Your task to perform on an android device: Go to privacy settings Image 0: 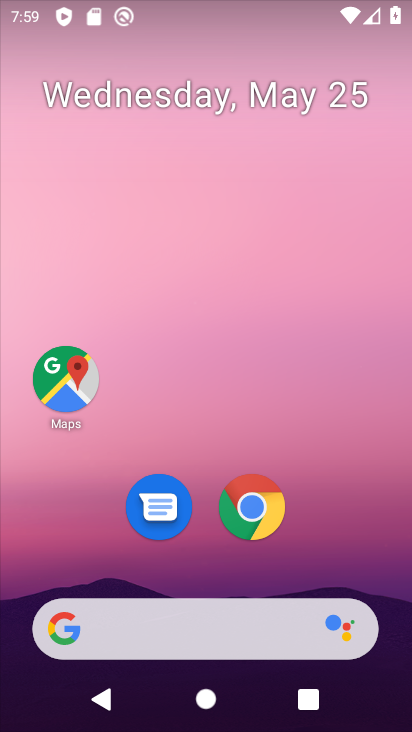
Step 0: drag from (222, 588) to (101, 0)
Your task to perform on an android device: Go to privacy settings Image 1: 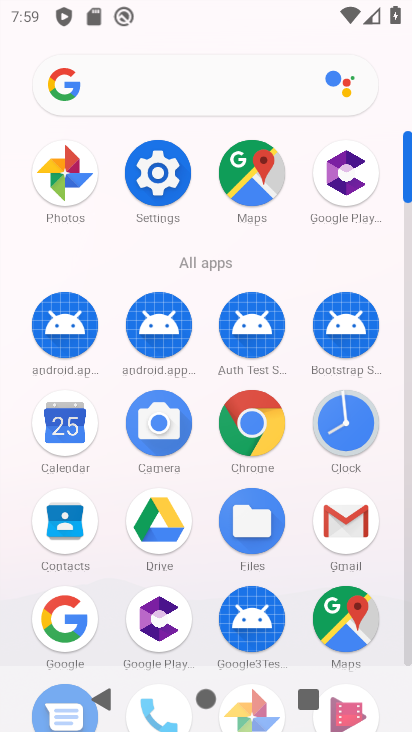
Step 1: click (160, 154)
Your task to perform on an android device: Go to privacy settings Image 2: 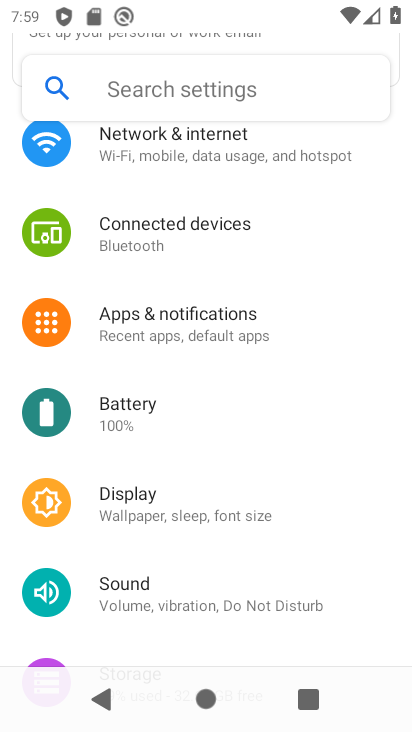
Step 2: drag from (204, 560) to (161, 186)
Your task to perform on an android device: Go to privacy settings Image 3: 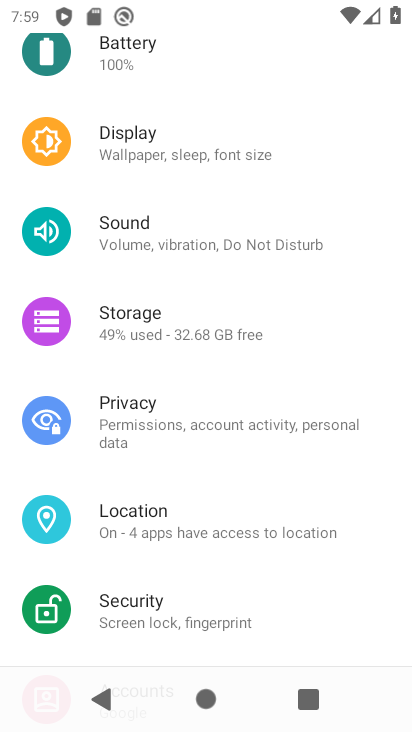
Step 3: click (124, 398)
Your task to perform on an android device: Go to privacy settings Image 4: 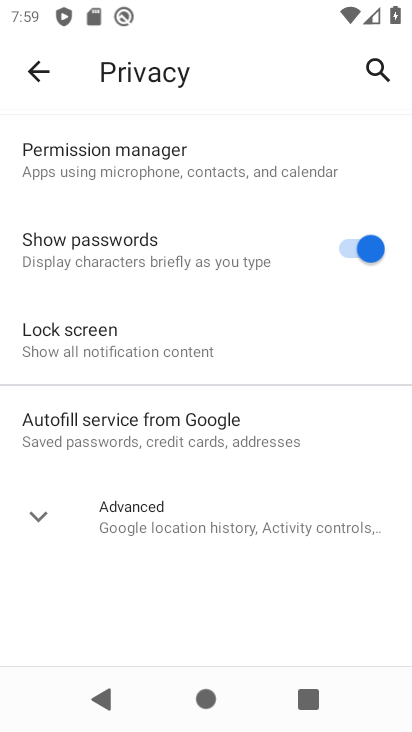
Step 4: task complete